Your task to perform on an android device: Go to accessibility settings Image 0: 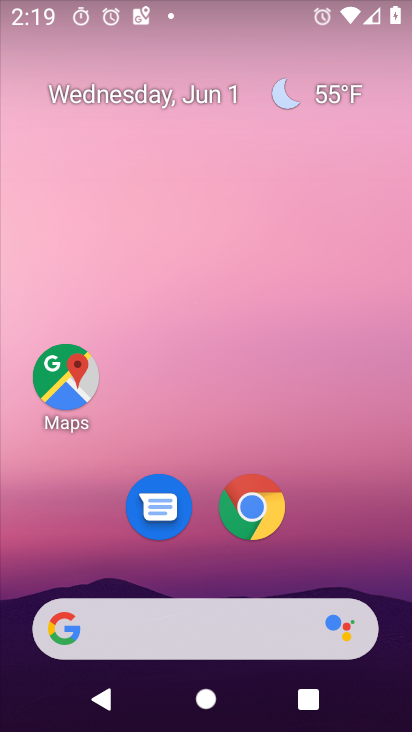
Step 0: drag from (347, 592) to (286, 16)
Your task to perform on an android device: Go to accessibility settings Image 1: 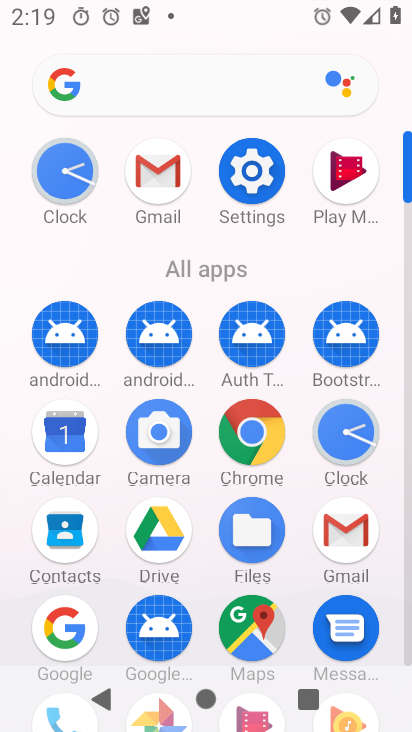
Step 1: click (241, 167)
Your task to perform on an android device: Go to accessibility settings Image 2: 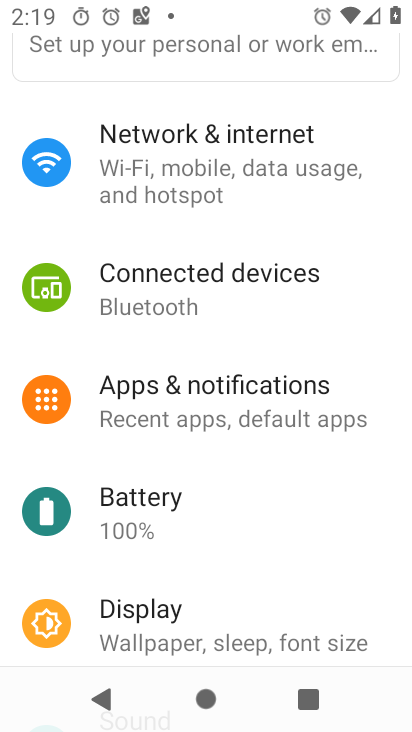
Step 2: drag from (353, 572) to (335, 116)
Your task to perform on an android device: Go to accessibility settings Image 3: 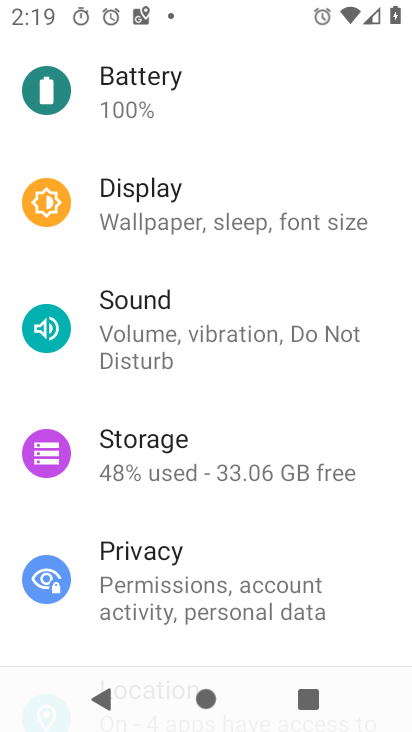
Step 3: drag from (351, 569) to (328, 152)
Your task to perform on an android device: Go to accessibility settings Image 4: 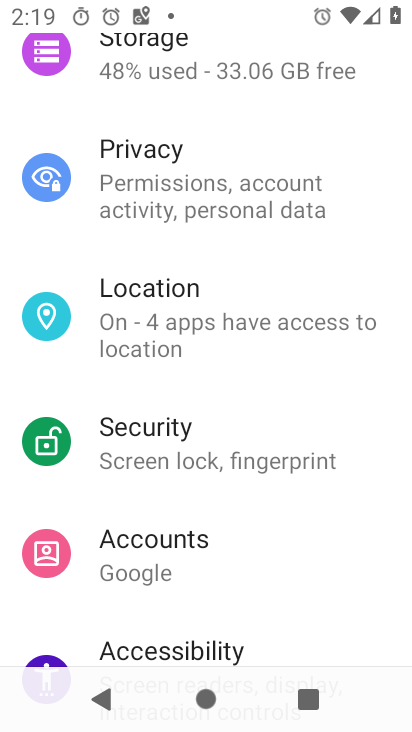
Step 4: drag from (330, 551) to (315, 286)
Your task to perform on an android device: Go to accessibility settings Image 5: 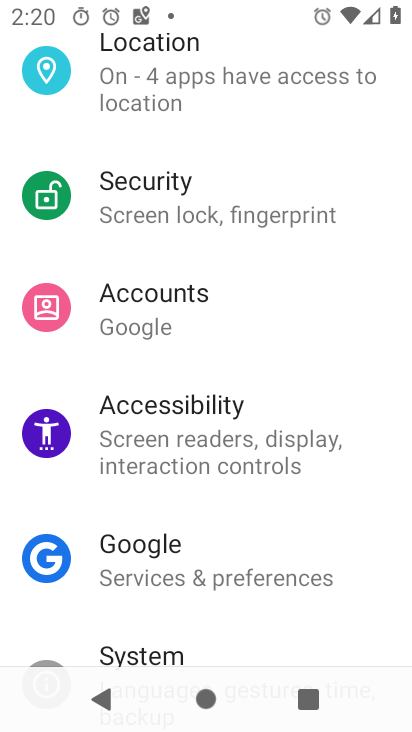
Step 5: click (203, 435)
Your task to perform on an android device: Go to accessibility settings Image 6: 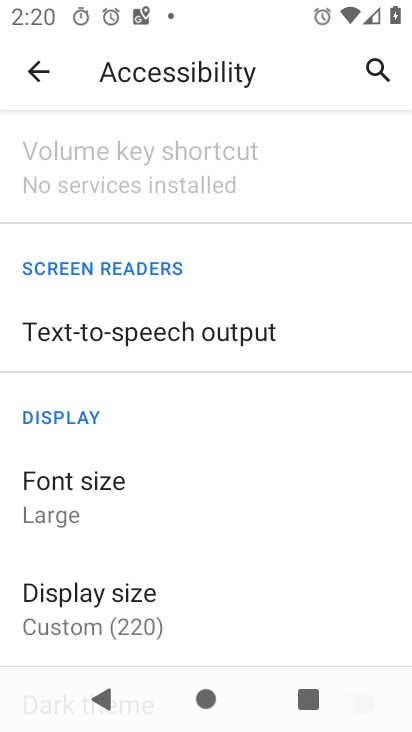
Step 6: task complete